Your task to perform on an android device: empty trash in the gmail app Image 0: 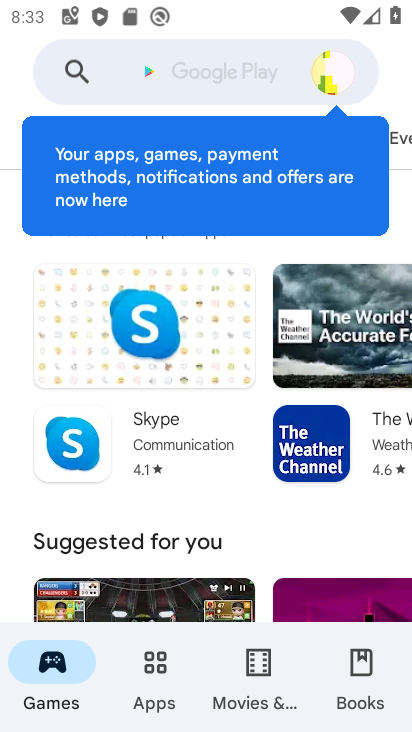
Step 0: press back button
Your task to perform on an android device: empty trash in the gmail app Image 1: 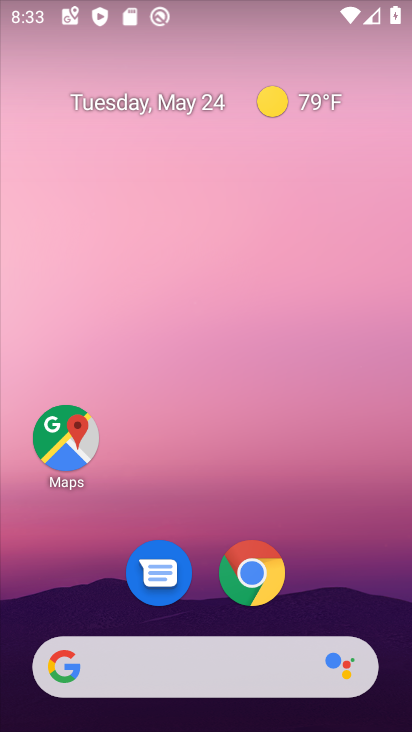
Step 1: drag from (327, 679) to (248, 184)
Your task to perform on an android device: empty trash in the gmail app Image 2: 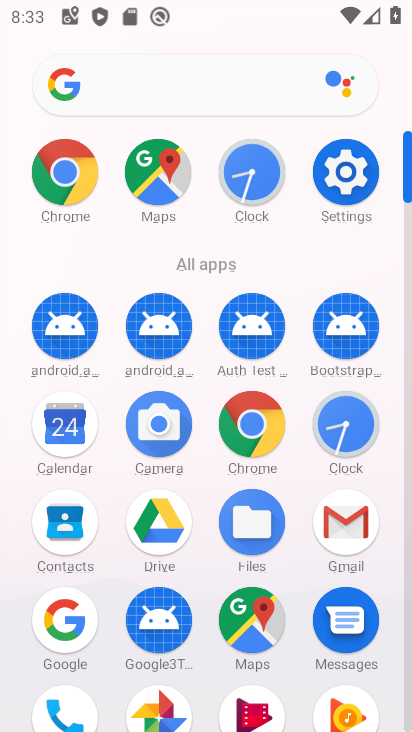
Step 2: click (337, 522)
Your task to perform on an android device: empty trash in the gmail app Image 3: 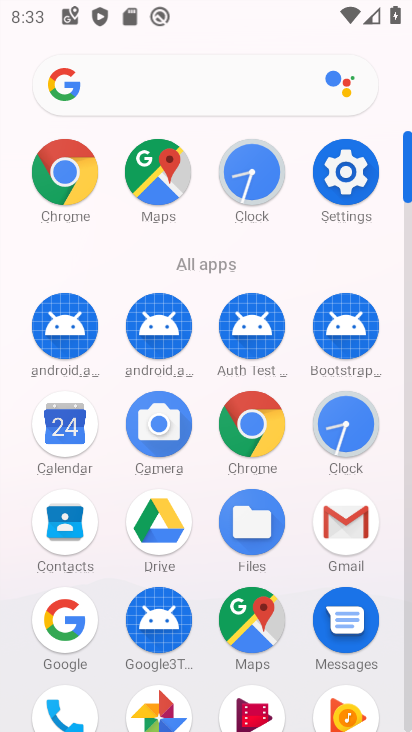
Step 3: click (337, 522)
Your task to perform on an android device: empty trash in the gmail app Image 4: 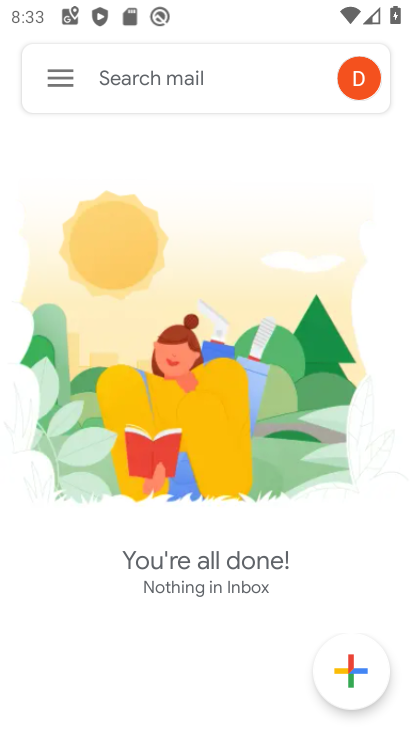
Step 4: click (36, 57)
Your task to perform on an android device: empty trash in the gmail app Image 5: 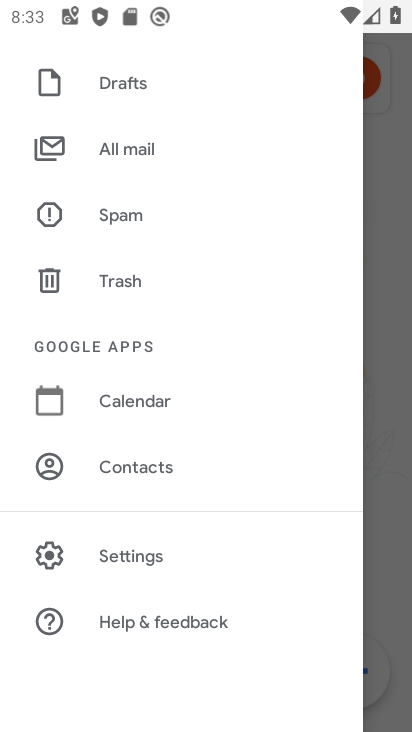
Step 5: click (125, 548)
Your task to perform on an android device: empty trash in the gmail app Image 6: 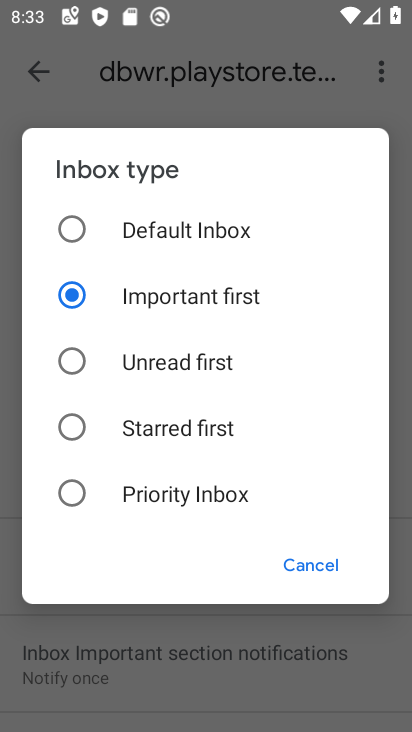
Step 6: click (288, 562)
Your task to perform on an android device: empty trash in the gmail app Image 7: 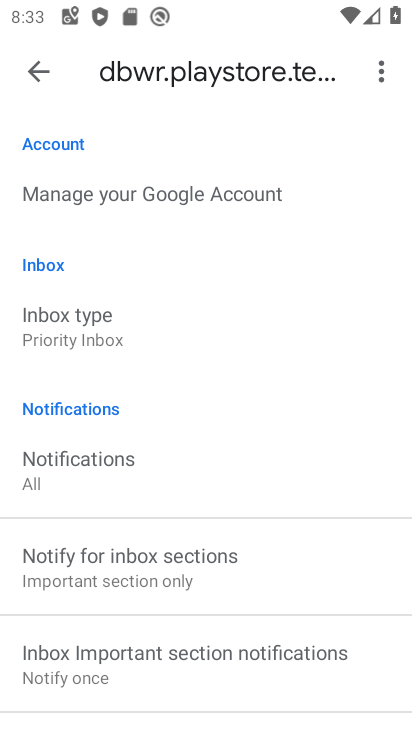
Step 7: click (23, 69)
Your task to perform on an android device: empty trash in the gmail app Image 8: 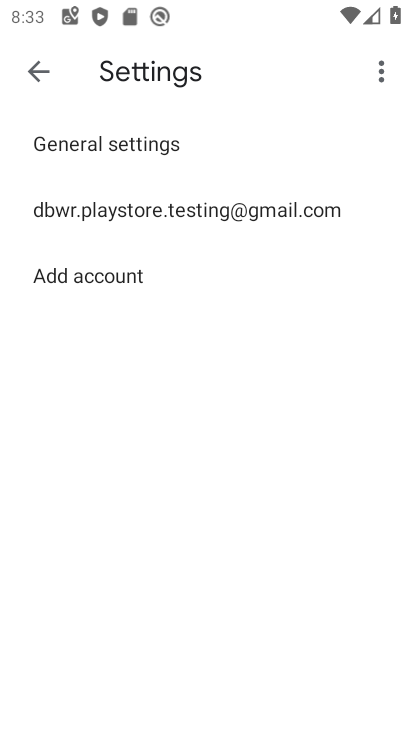
Step 8: click (37, 72)
Your task to perform on an android device: empty trash in the gmail app Image 9: 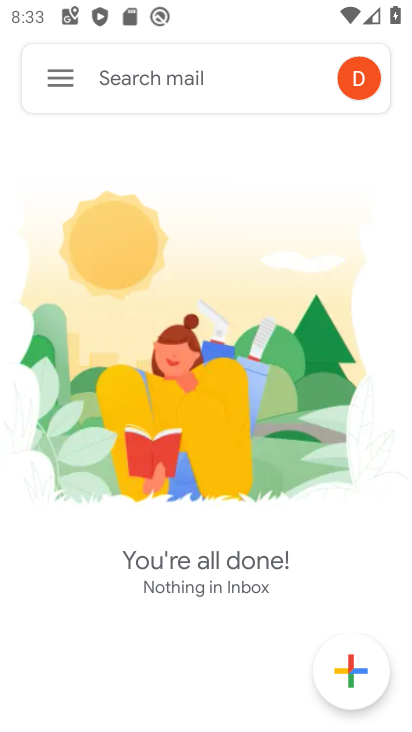
Step 9: click (35, 74)
Your task to perform on an android device: empty trash in the gmail app Image 10: 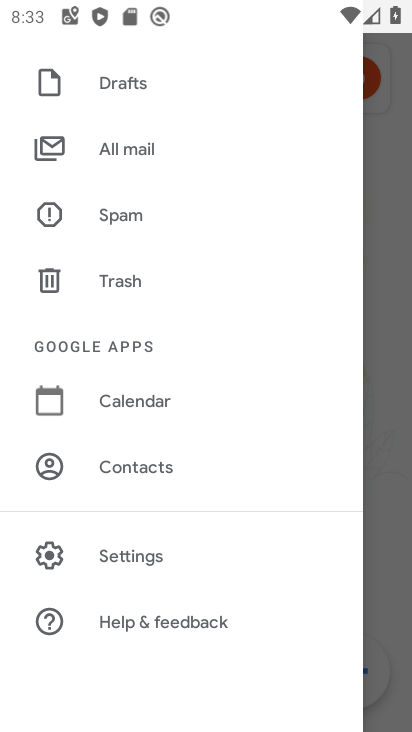
Step 10: click (119, 278)
Your task to perform on an android device: empty trash in the gmail app Image 11: 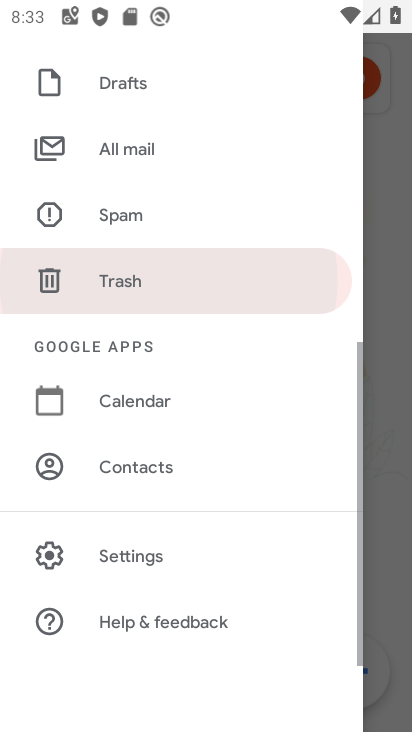
Step 11: click (119, 278)
Your task to perform on an android device: empty trash in the gmail app Image 12: 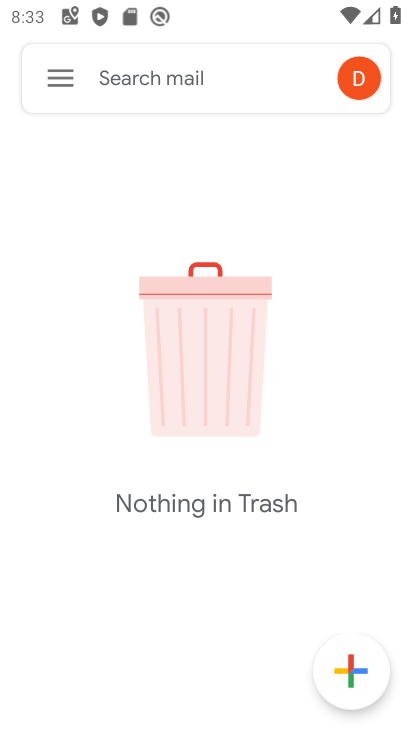
Step 12: task complete